Your task to perform on an android device: Open my contact list Image 0: 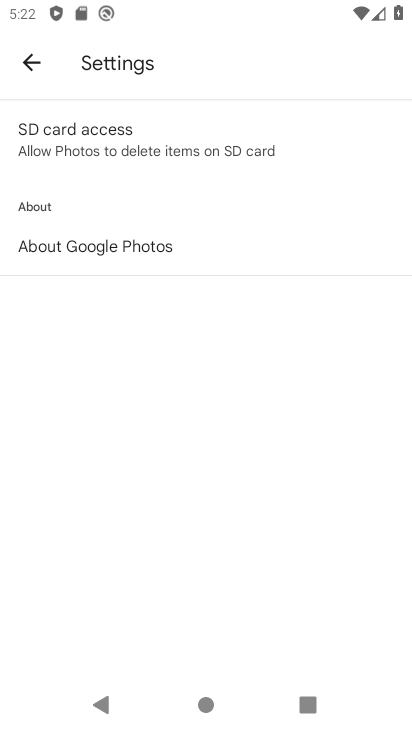
Step 0: press home button
Your task to perform on an android device: Open my contact list Image 1: 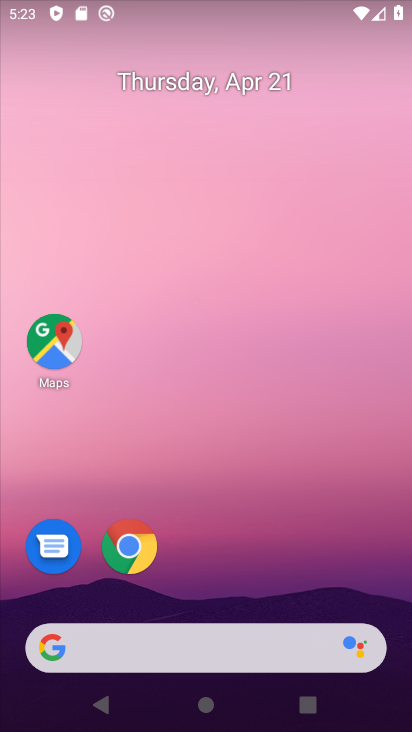
Step 1: drag from (220, 599) to (232, 3)
Your task to perform on an android device: Open my contact list Image 2: 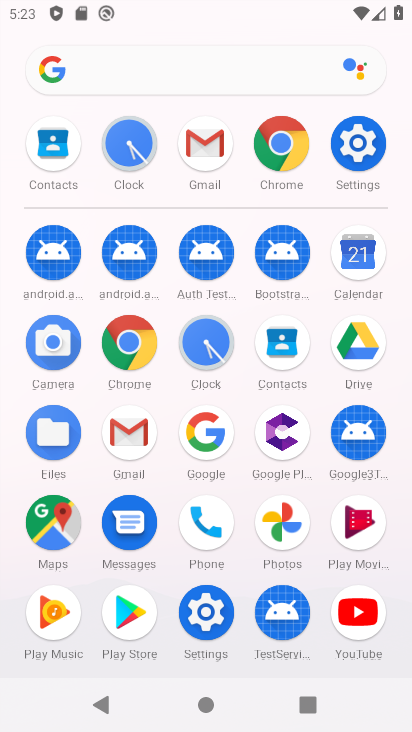
Step 2: click (286, 345)
Your task to perform on an android device: Open my contact list Image 3: 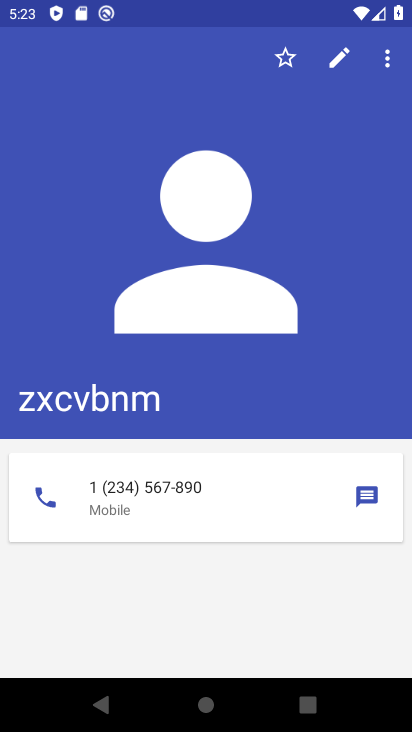
Step 3: press back button
Your task to perform on an android device: Open my contact list Image 4: 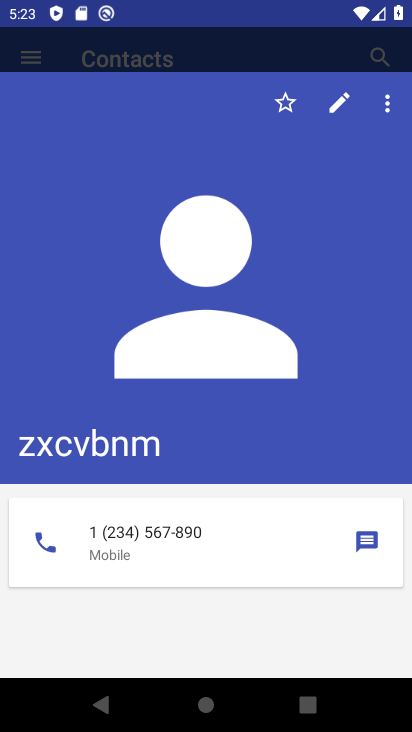
Step 4: press back button
Your task to perform on an android device: Open my contact list Image 5: 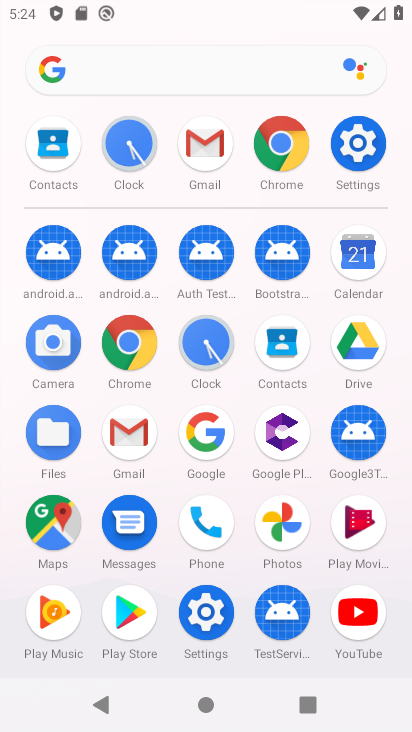
Step 5: press back button
Your task to perform on an android device: Open my contact list Image 6: 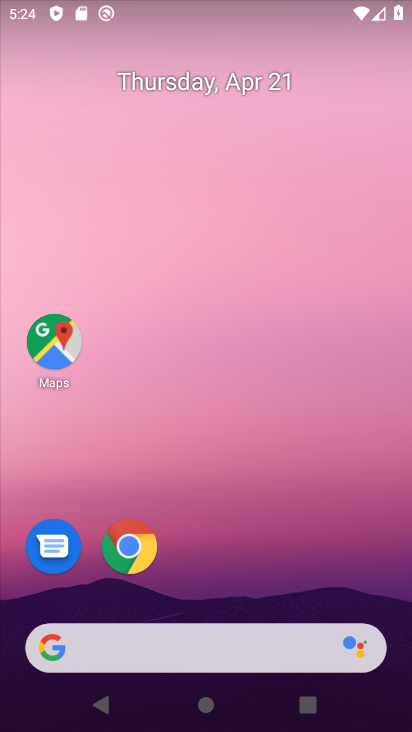
Step 6: drag from (270, 529) to (290, 93)
Your task to perform on an android device: Open my contact list Image 7: 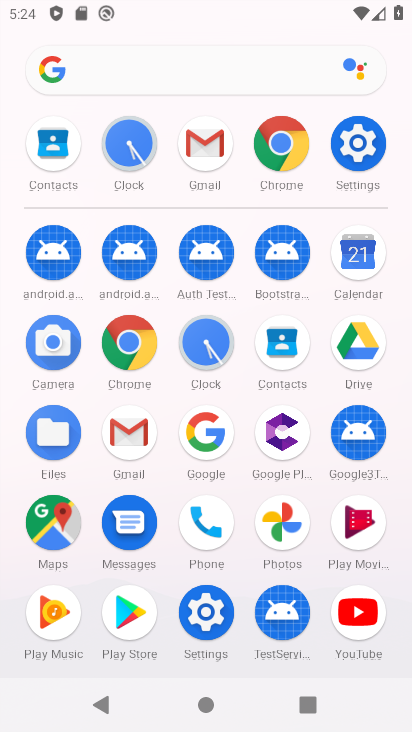
Step 7: click (283, 340)
Your task to perform on an android device: Open my contact list Image 8: 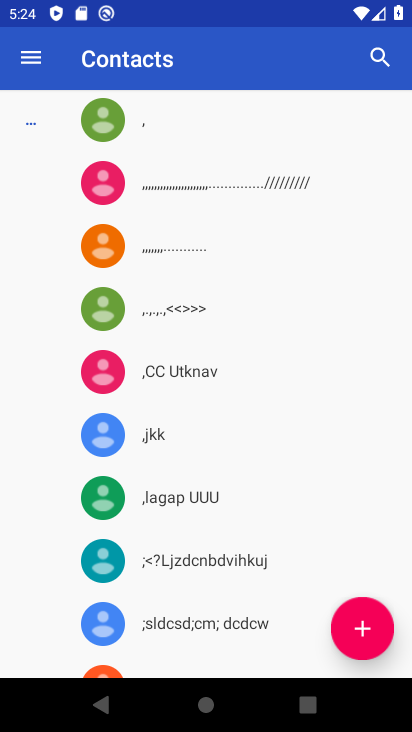
Step 8: task complete